Your task to perform on an android device: snooze an email in the gmail app Image 0: 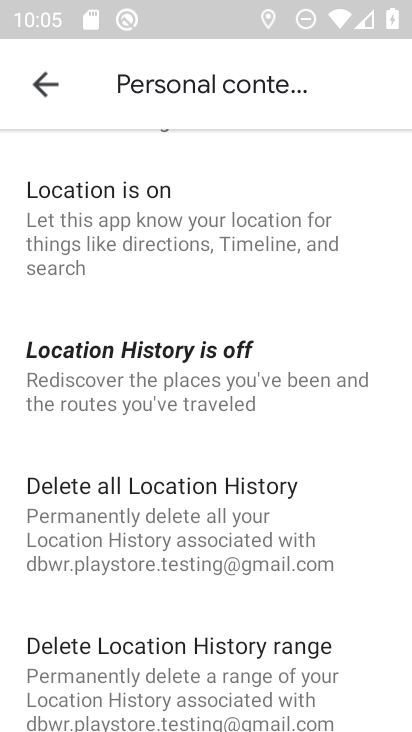
Step 0: press home button
Your task to perform on an android device: snooze an email in the gmail app Image 1: 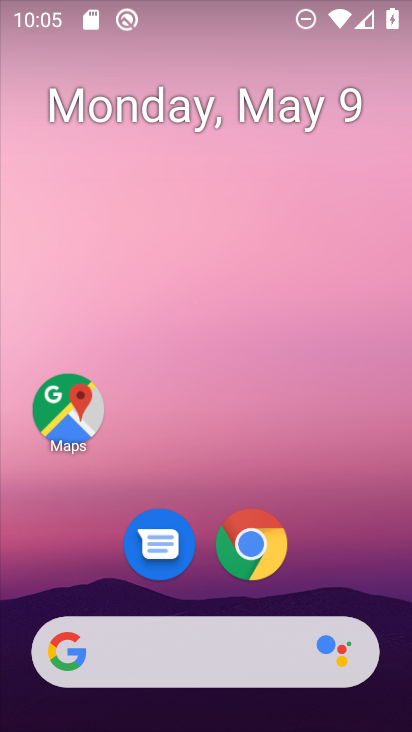
Step 1: drag from (329, 551) to (255, 51)
Your task to perform on an android device: snooze an email in the gmail app Image 2: 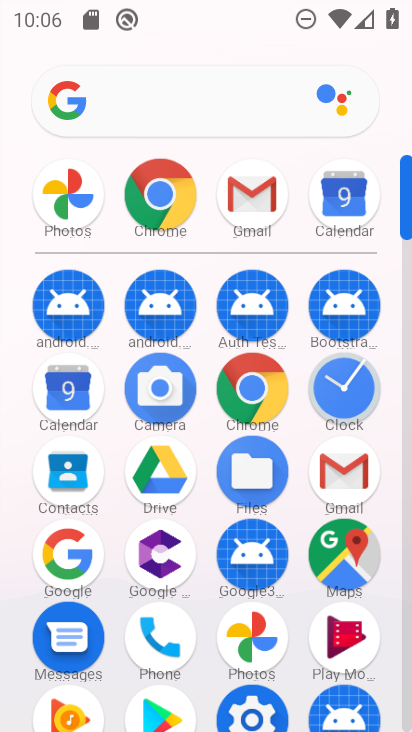
Step 2: click (241, 196)
Your task to perform on an android device: snooze an email in the gmail app Image 3: 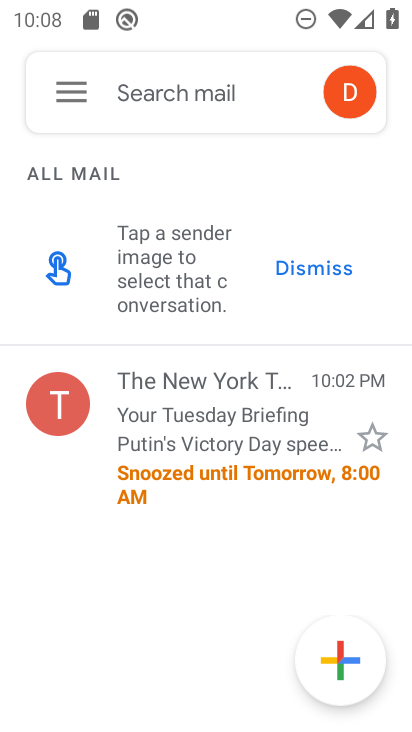
Step 3: task complete